Your task to perform on an android device: Open Google Maps Image 0: 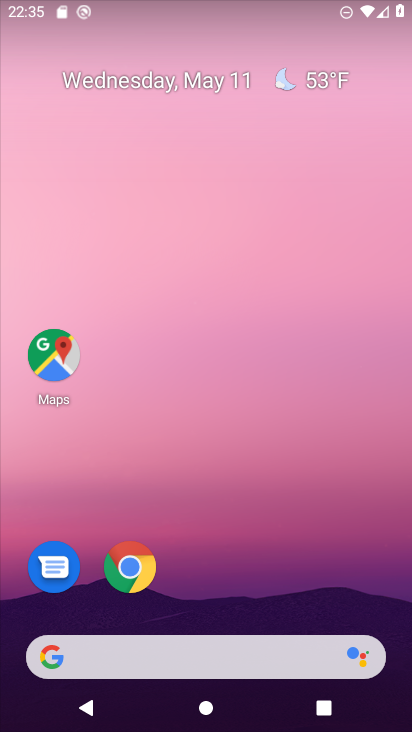
Step 0: click (40, 357)
Your task to perform on an android device: Open Google Maps Image 1: 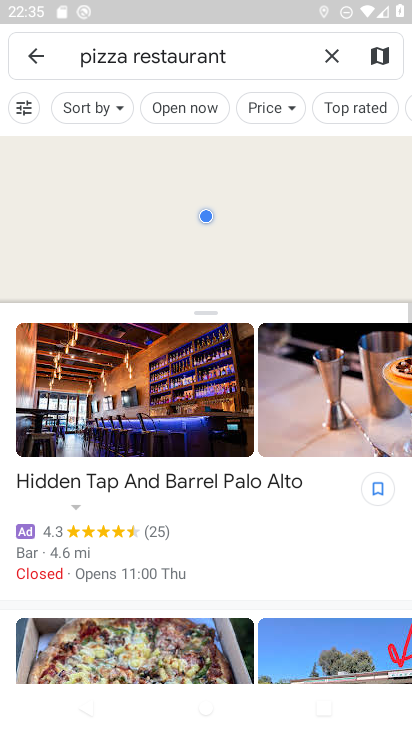
Step 1: task complete